Your task to perform on an android device: open device folders in google photos Image 0: 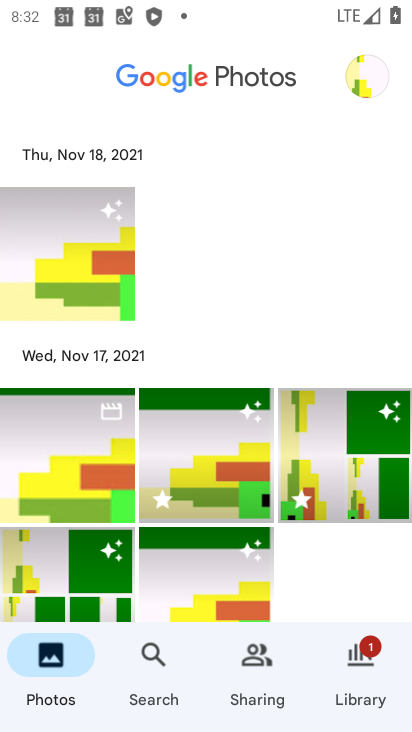
Step 0: press home button
Your task to perform on an android device: open device folders in google photos Image 1: 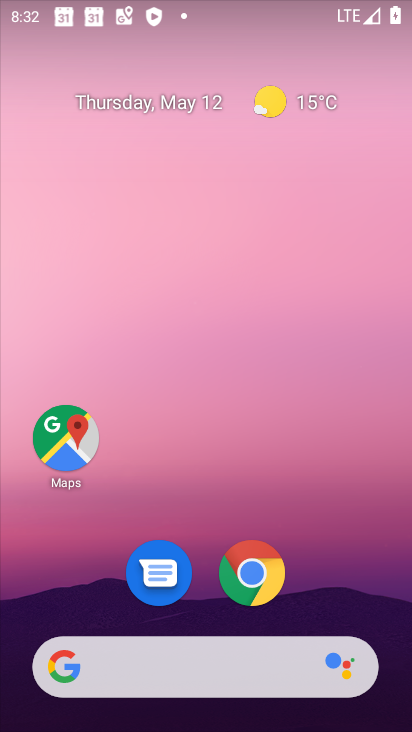
Step 1: drag from (322, 503) to (207, 3)
Your task to perform on an android device: open device folders in google photos Image 2: 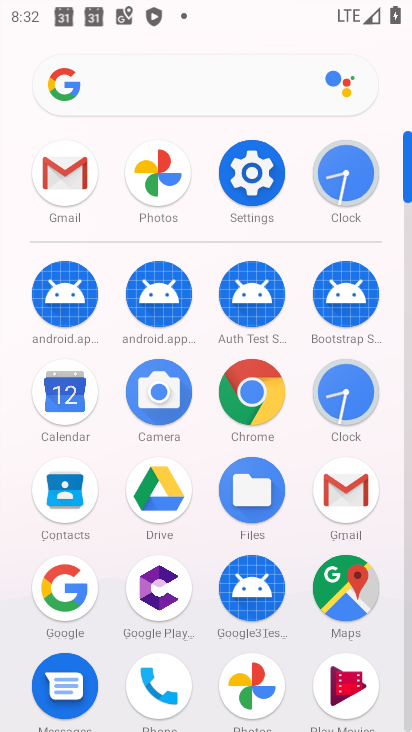
Step 2: click (153, 174)
Your task to perform on an android device: open device folders in google photos Image 3: 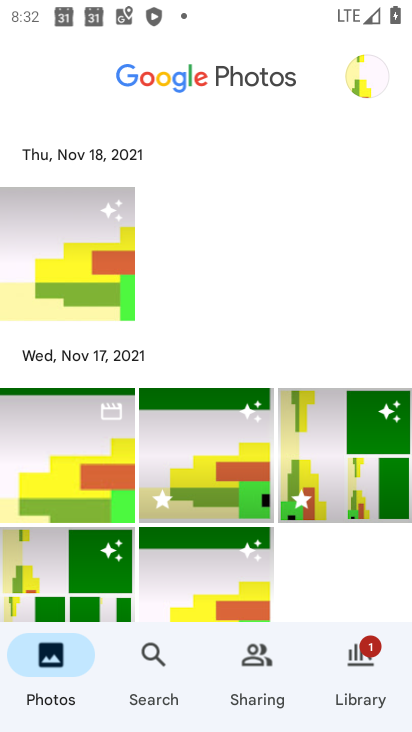
Step 3: click (368, 61)
Your task to perform on an android device: open device folders in google photos Image 4: 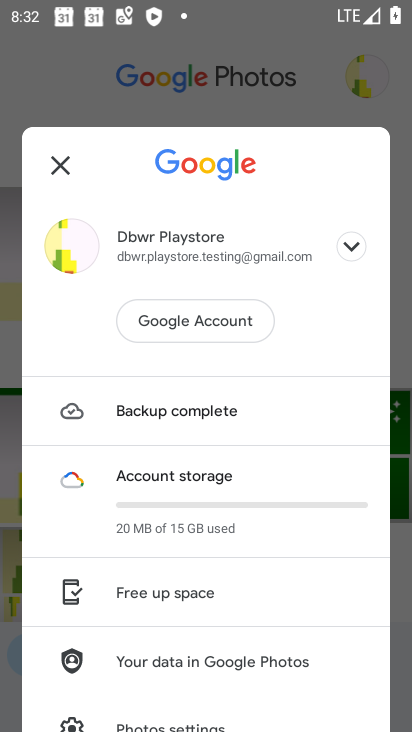
Step 4: drag from (298, 538) to (67, 162)
Your task to perform on an android device: open device folders in google photos Image 5: 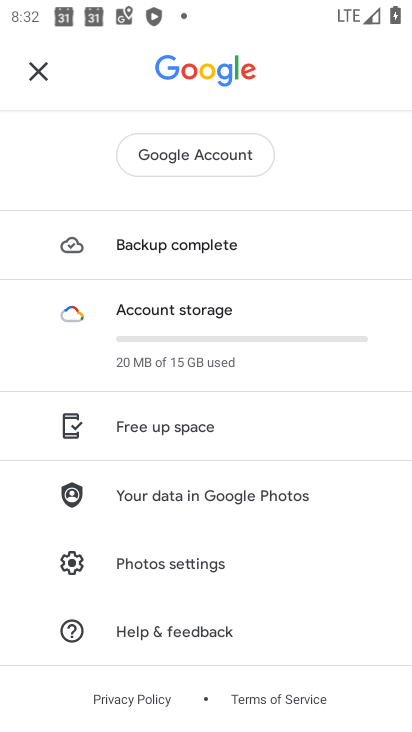
Step 5: click (34, 72)
Your task to perform on an android device: open device folders in google photos Image 6: 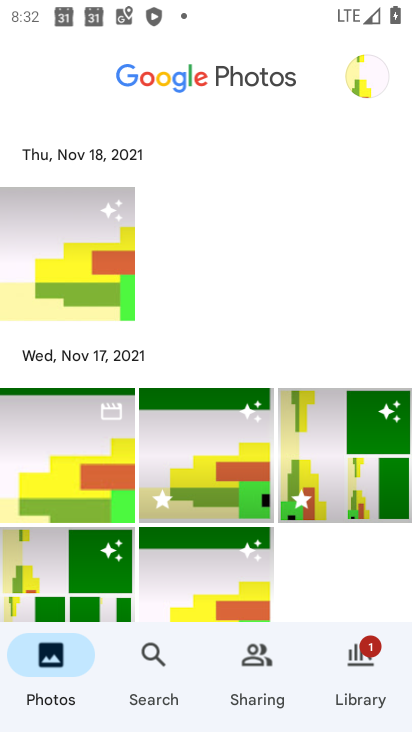
Step 6: click (150, 656)
Your task to perform on an android device: open device folders in google photos Image 7: 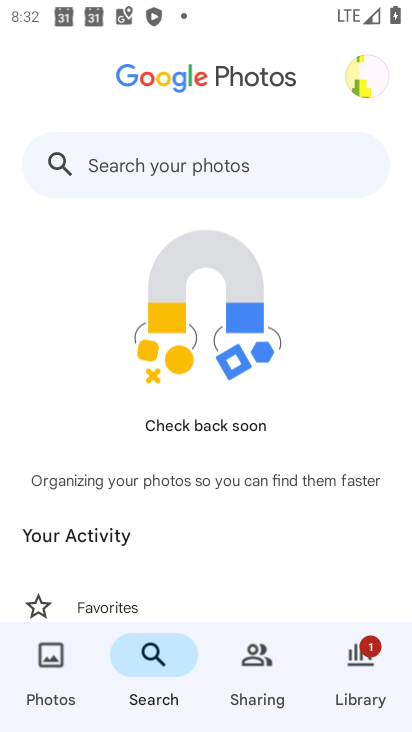
Step 7: click (195, 174)
Your task to perform on an android device: open device folders in google photos Image 8: 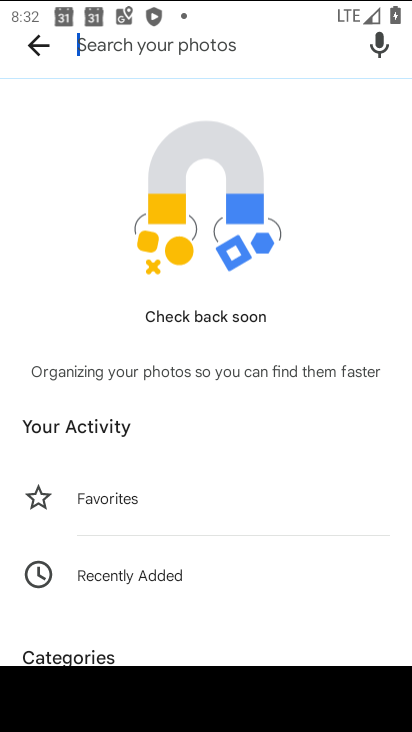
Step 8: type "device folder"
Your task to perform on an android device: open device folders in google photos Image 9: 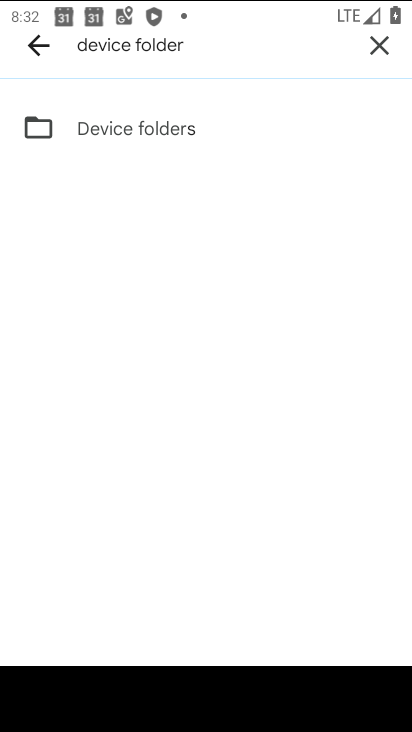
Step 9: click (125, 130)
Your task to perform on an android device: open device folders in google photos Image 10: 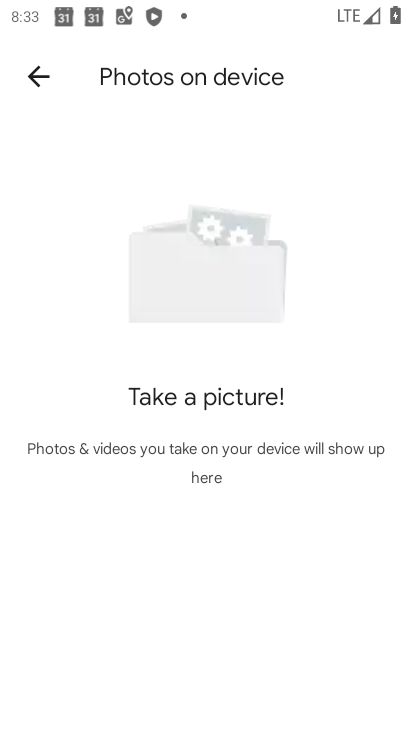
Step 10: task complete